Your task to perform on an android device: Go to network settings Image 0: 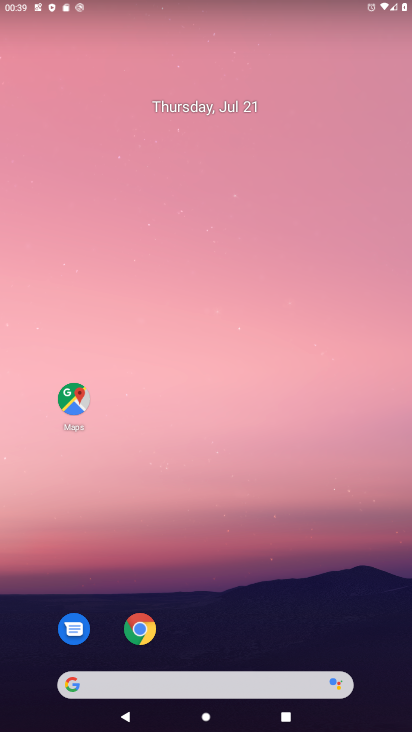
Step 0: drag from (365, 606) to (131, 127)
Your task to perform on an android device: Go to network settings Image 1: 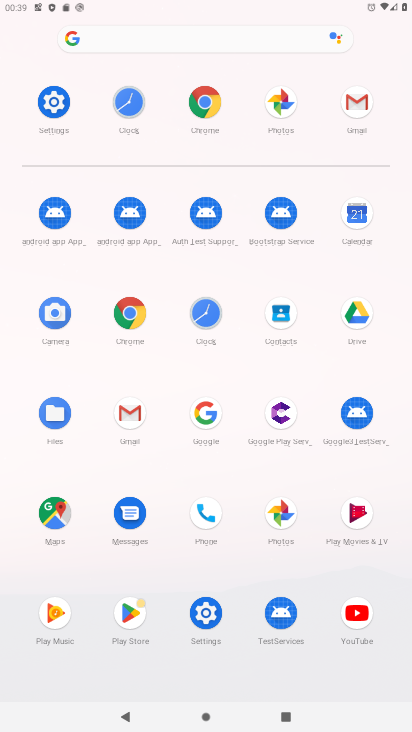
Step 1: click (43, 102)
Your task to perform on an android device: Go to network settings Image 2: 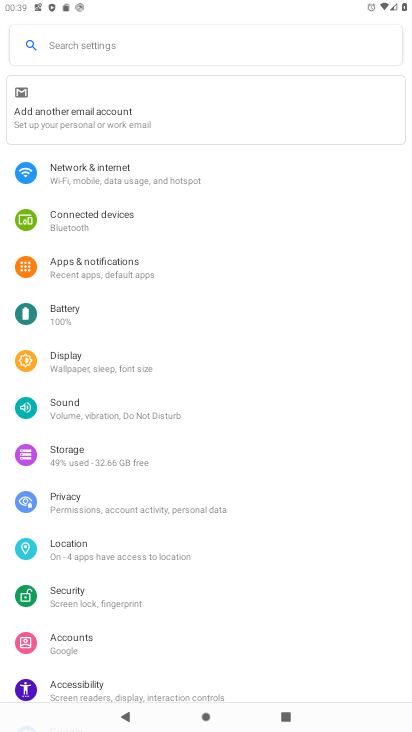
Step 2: click (95, 176)
Your task to perform on an android device: Go to network settings Image 3: 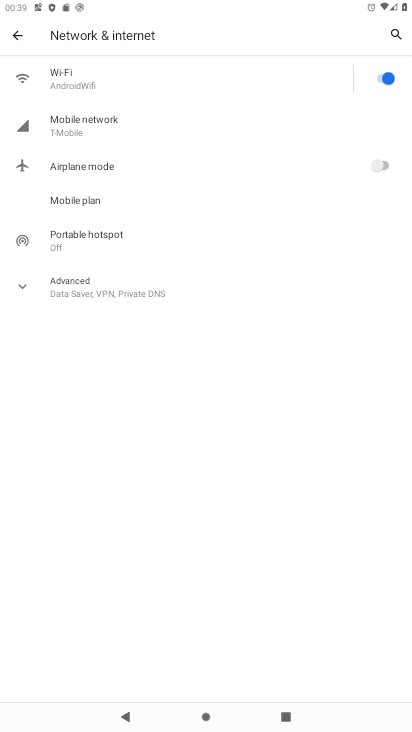
Step 3: task complete